Your task to perform on an android device: check the backup settings in the google photos Image 0: 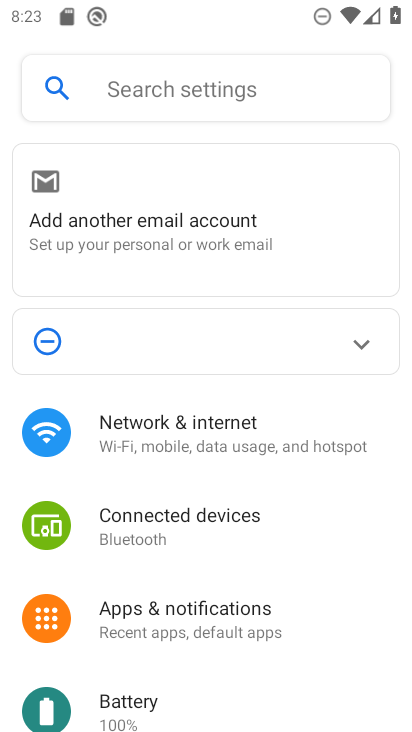
Step 0: press home button
Your task to perform on an android device: check the backup settings in the google photos Image 1: 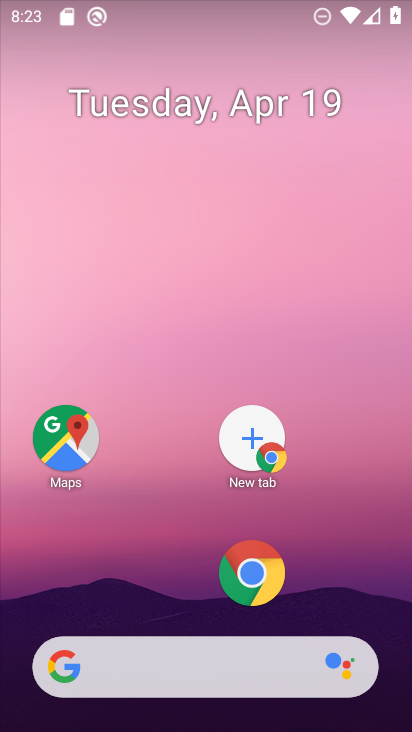
Step 1: drag from (169, 552) to (235, 61)
Your task to perform on an android device: check the backup settings in the google photos Image 2: 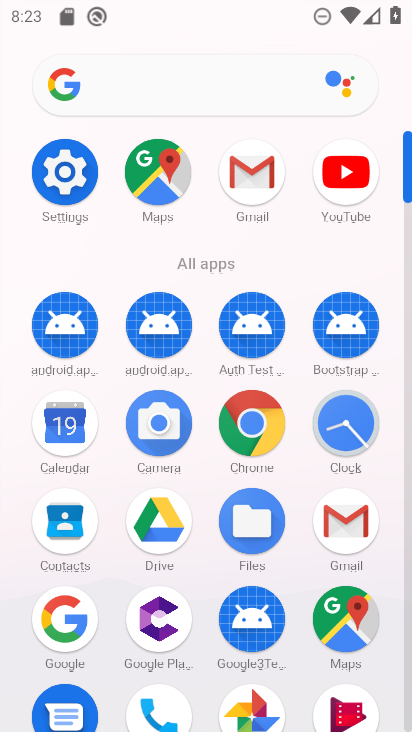
Step 2: click (256, 692)
Your task to perform on an android device: check the backup settings in the google photos Image 3: 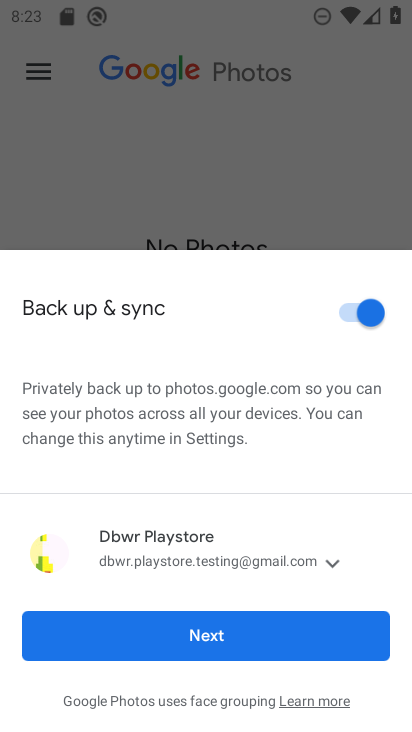
Step 3: click (250, 616)
Your task to perform on an android device: check the backup settings in the google photos Image 4: 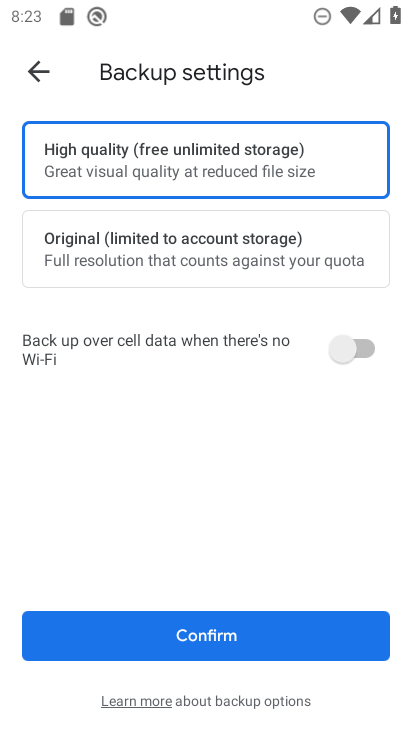
Step 4: task complete